Your task to perform on an android device: turn on javascript in the chrome app Image 0: 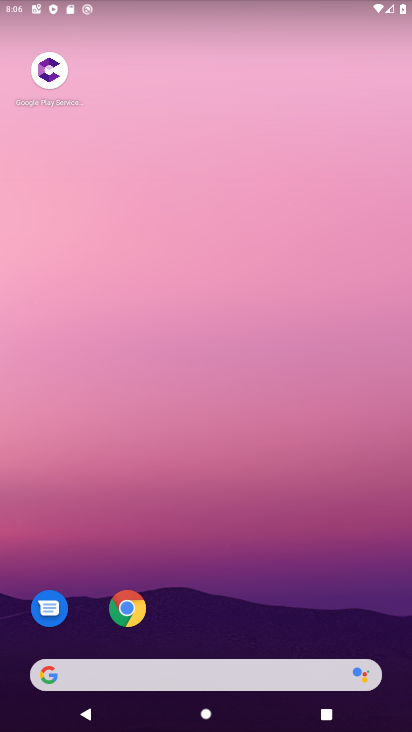
Step 0: click (125, 605)
Your task to perform on an android device: turn on javascript in the chrome app Image 1: 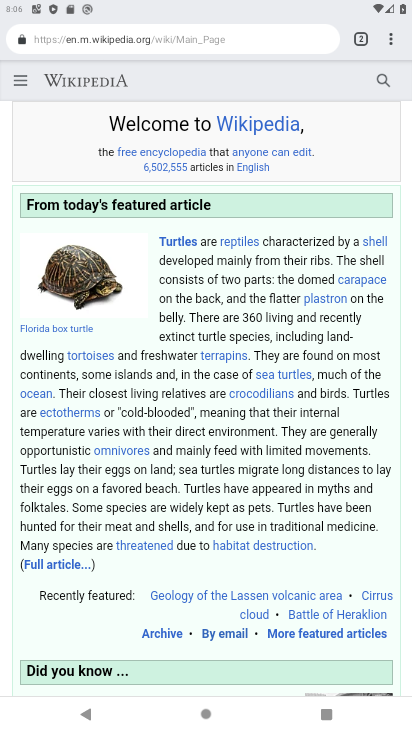
Step 1: click (388, 43)
Your task to perform on an android device: turn on javascript in the chrome app Image 2: 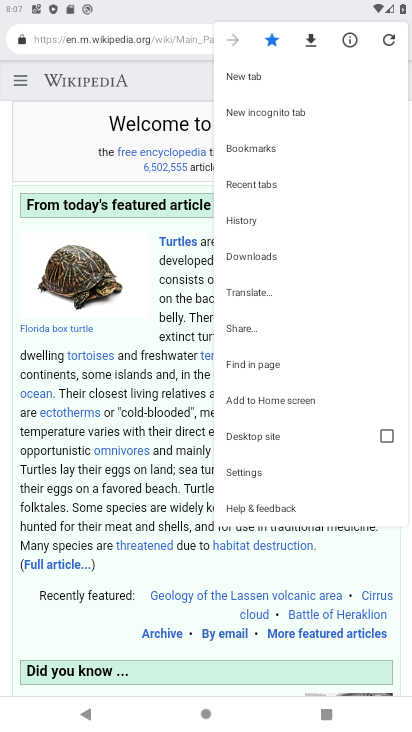
Step 2: click (240, 469)
Your task to perform on an android device: turn on javascript in the chrome app Image 3: 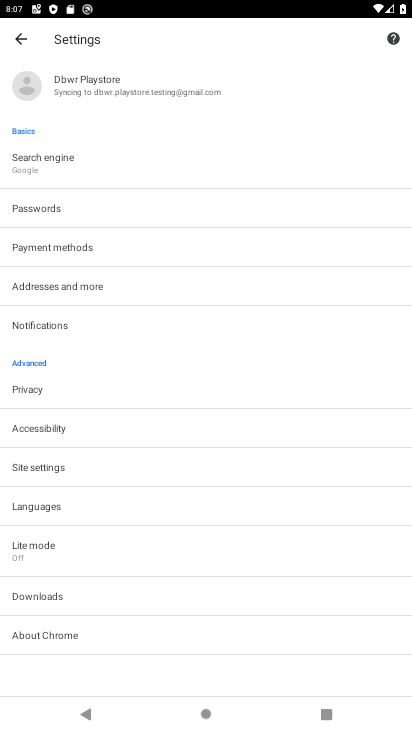
Step 3: click (38, 462)
Your task to perform on an android device: turn on javascript in the chrome app Image 4: 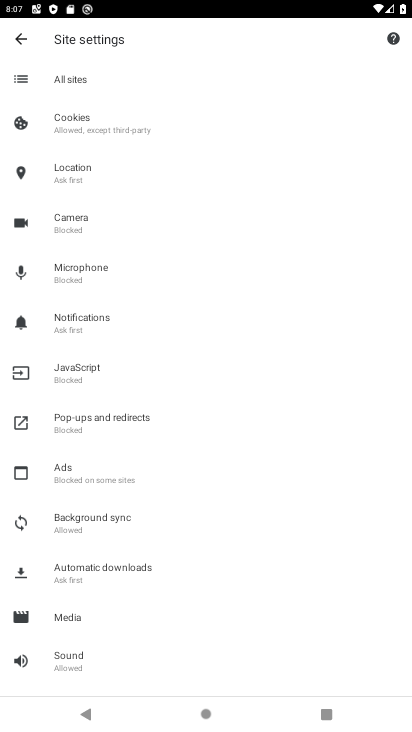
Step 4: click (67, 371)
Your task to perform on an android device: turn on javascript in the chrome app Image 5: 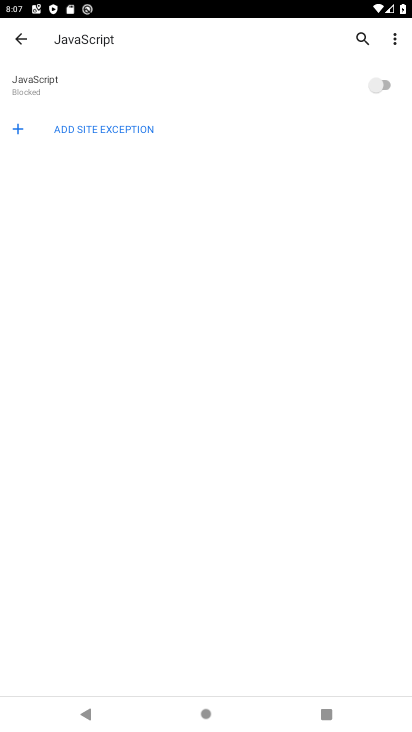
Step 5: click (383, 85)
Your task to perform on an android device: turn on javascript in the chrome app Image 6: 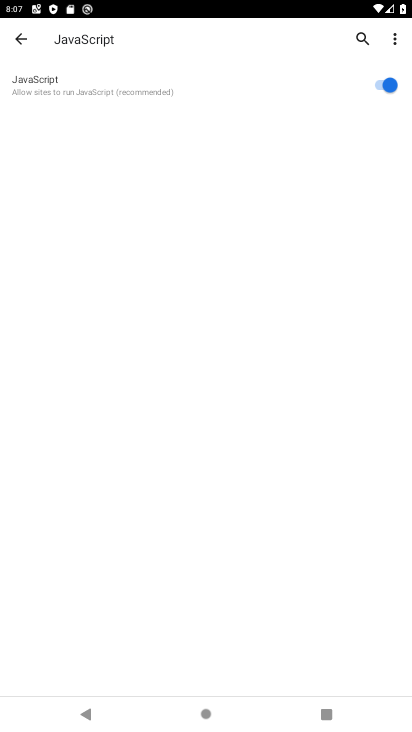
Step 6: task complete